Your task to perform on an android device: Show the shopping cart on amazon. Search for macbook on amazon, select the first entry, and add it to the cart. Image 0: 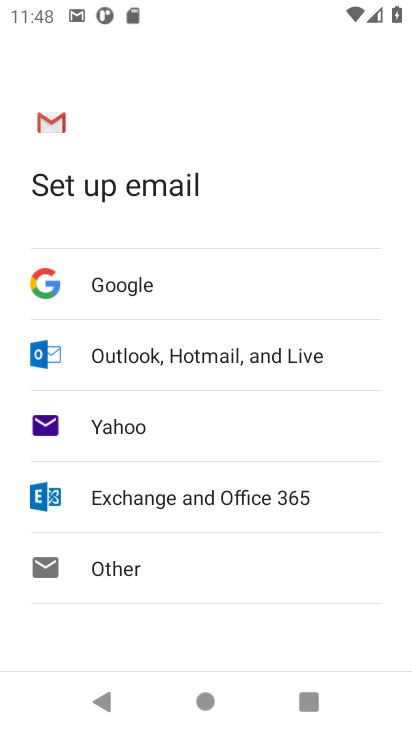
Step 0: press home button
Your task to perform on an android device: Show the shopping cart on amazon. Search for macbook on amazon, select the first entry, and add it to the cart. Image 1: 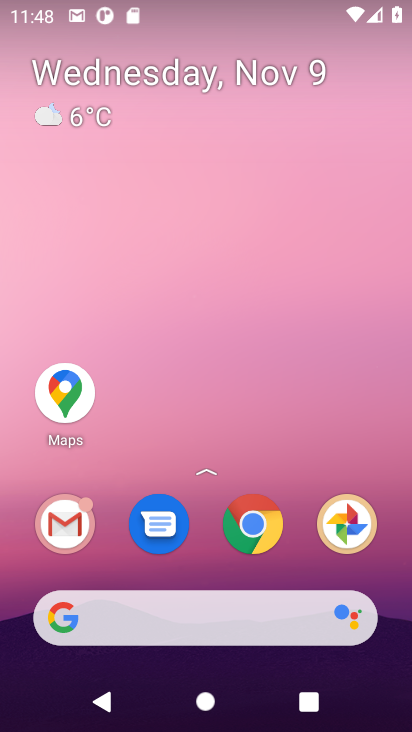
Step 1: click (256, 525)
Your task to perform on an android device: Show the shopping cart on amazon. Search for macbook on amazon, select the first entry, and add it to the cart. Image 2: 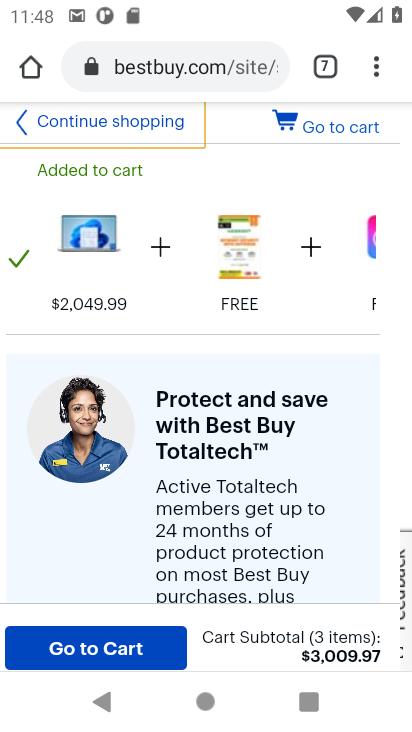
Step 2: click (323, 66)
Your task to perform on an android device: Show the shopping cart on amazon. Search for macbook on amazon, select the first entry, and add it to the cart. Image 3: 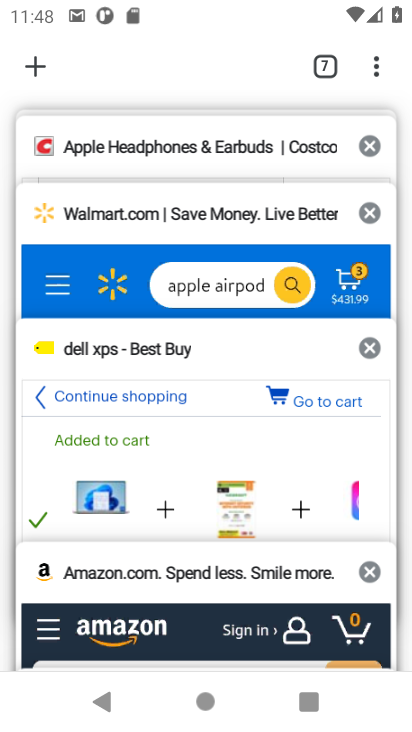
Step 3: click (109, 598)
Your task to perform on an android device: Show the shopping cart on amazon. Search for macbook on amazon, select the first entry, and add it to the cart. Image 4: 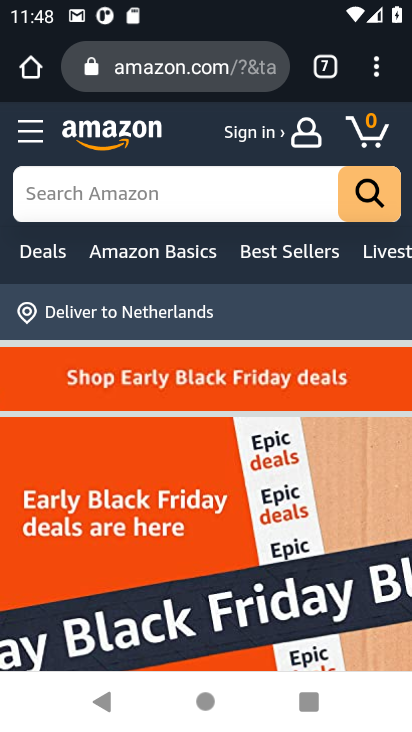
Step 4: click (127, 194)
Your task to perform on an android device: Show the shopping cart on amazon. Search for macbook on amazon, select the first entry, and add it to the cart. Image 5: 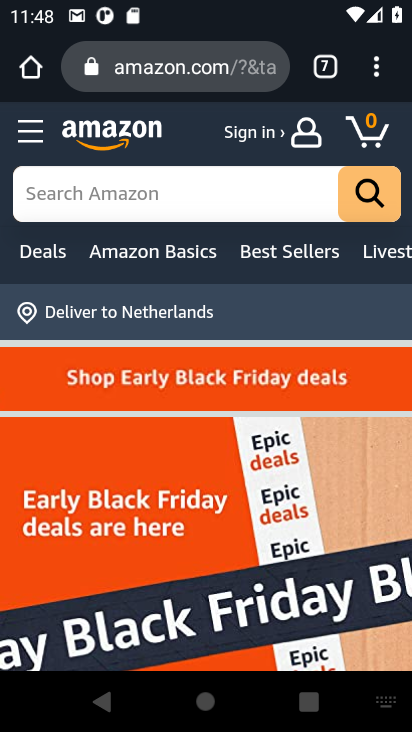
Step 5: type "macbook "
Your task to perform on an android device: Show the shopping cart on amazon. Search for macbook on amazon, select the first entry, and add it to the cart. Image 6: 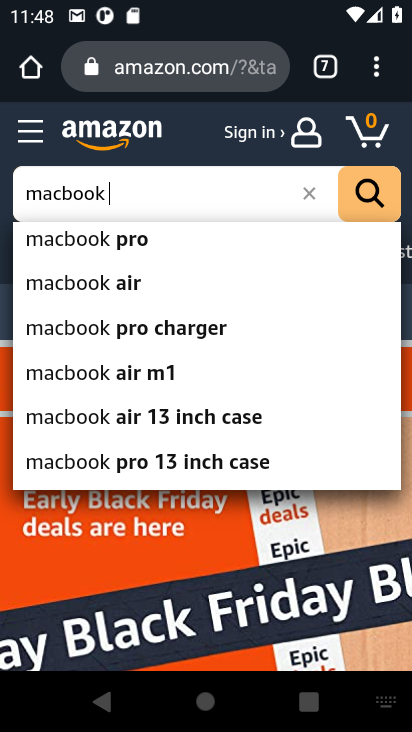
Step 6: click (91, 239)
Your task to perform on an android device: Show the shopping cart on amazon. Search for macbook on amazon, select the first entry, and add it to the cart. Image 7: 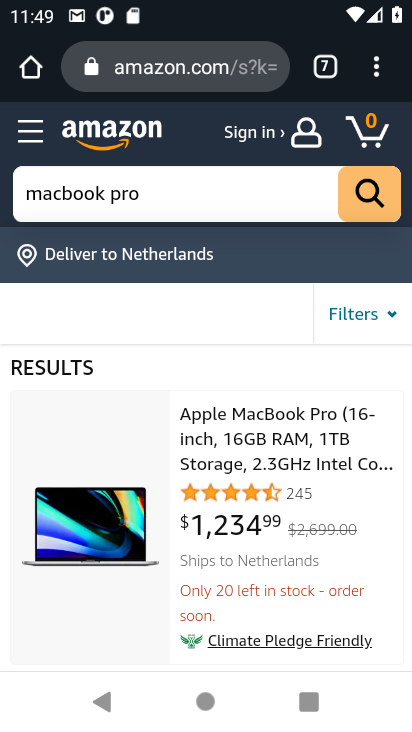
Step 7: click (293, 438)
Your task to perform on an android device: Show the shopping cart on amazon. Search for macbook on amazon, select the first entry, and add it to the cart. Image 8: 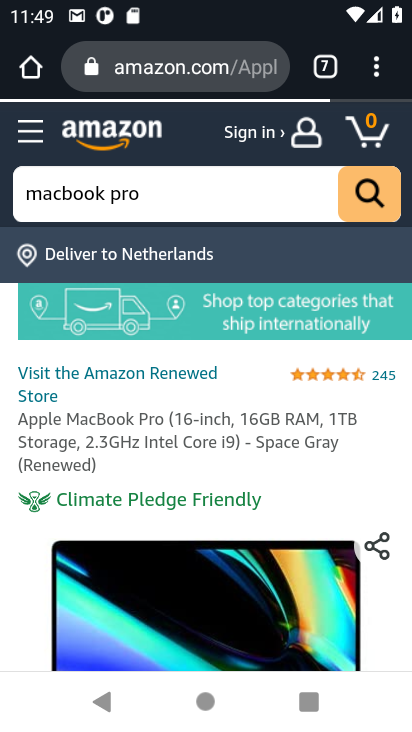
Step 8: drag from (273, 561) to (355, 325)
Your task to perform on an android device: Show the shopping cart on amazon. Search for macbook on amazon, select the first entry, and add it to the cart. Image 9: 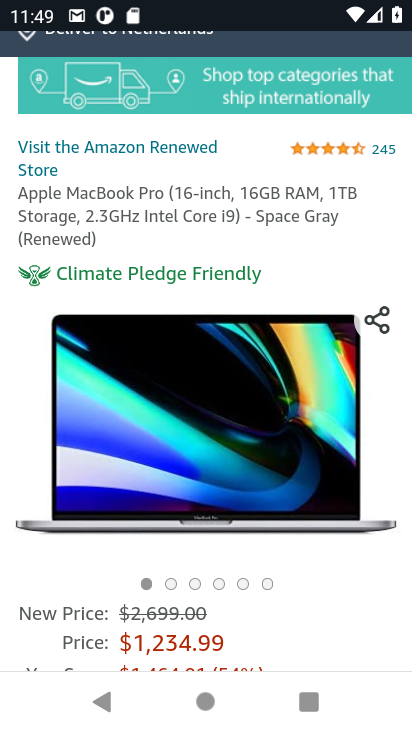
Step 9: drag from (267, 613) to (359, 305)
Your task to perform on an android device: Show the shopping cart on amazon. Search for macbook on amazon, select the first entry, and add it to the cart. Image 10: 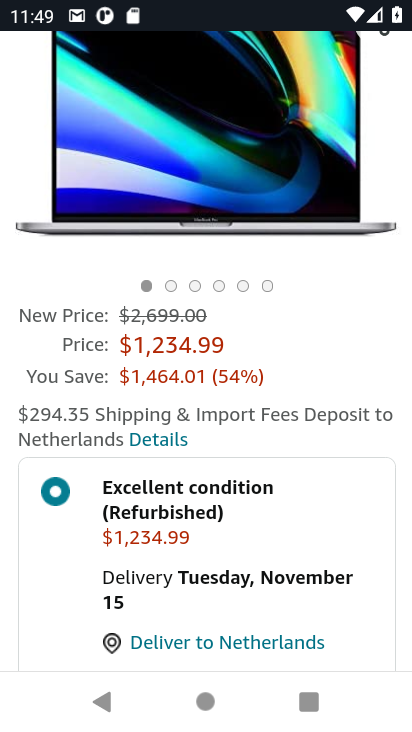
Step 10: drag from (225, 561) to (320, 168)
Your task to perform on an android device: Show the shopping cart on amazon. Search for macbook on amazon, select the first entry, and add it to the cart. Image 11: 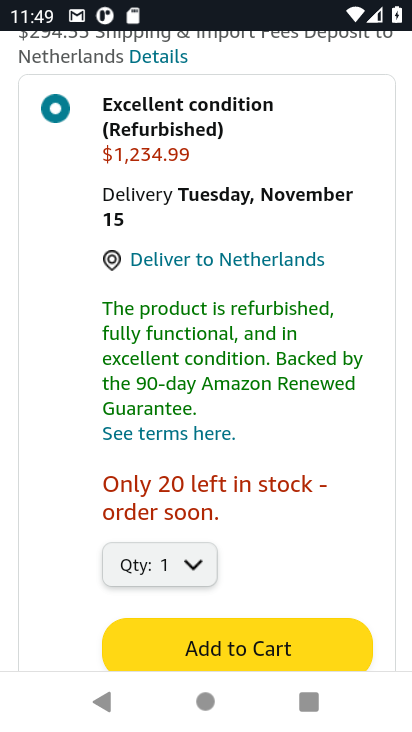
Step 11: click (237, 635)
Your task to perform on an android device: Show the shopping cart on amazon. Search for macbook on amazon, select the first entry, and add it to the cart. Image 12: 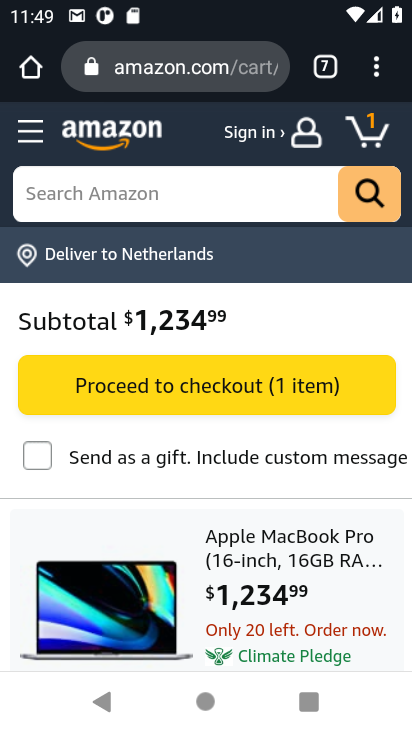
Step 12: task complete